Your task to perform on an android device: Set the phone to "Do not disturb". Image 0: 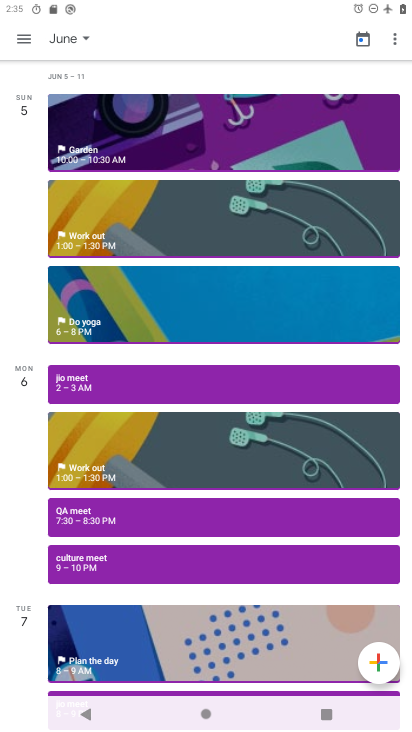
Step 0: drag from (310, 4) to (194, 590)
Your task to perform on an android device: Set the phone to "Do not disturb". Image 1: 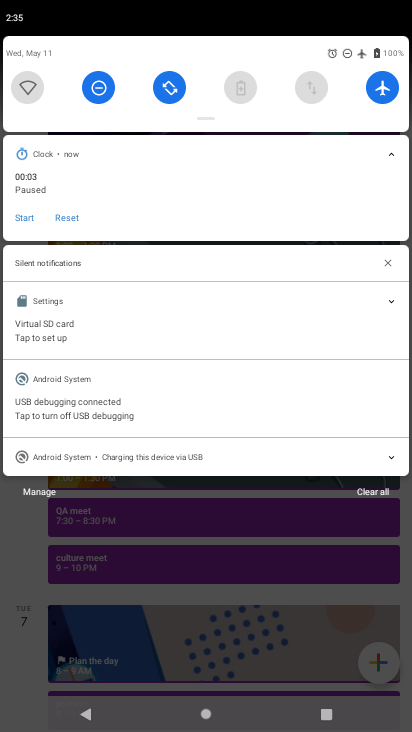
Step 1: task complete